Your task to perform on an android device: Open calendar and show me the first week of next month Image 0: 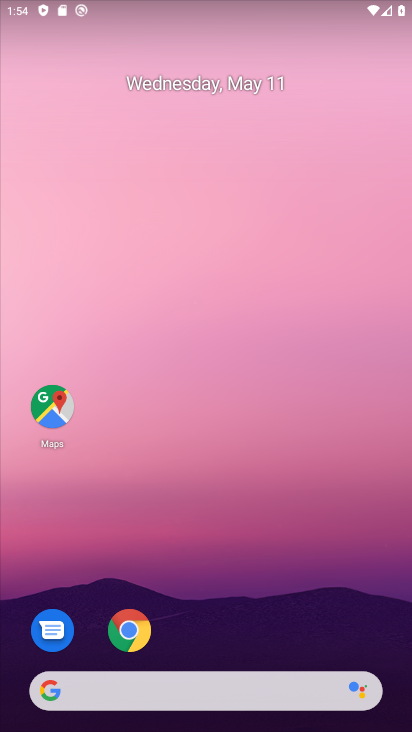
Step 0: drag from (217, 728) to (218, 158)
Your task to perform on an android device: Open calendar and show me the first week of next month Image 1: 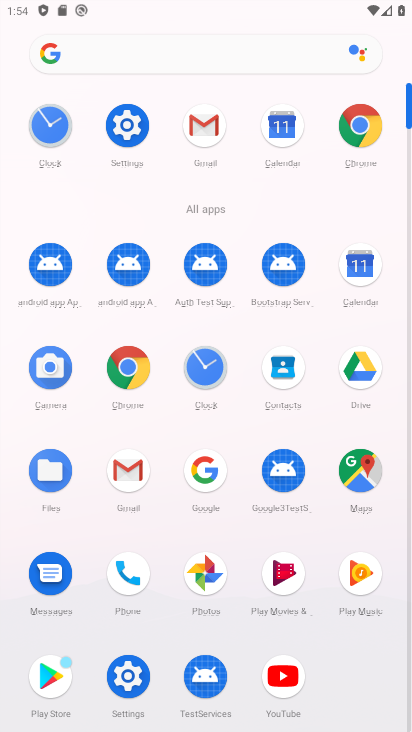
Step 1: click (364, 283)
Your task to perform on an android device: Open calendar and show me the first week of next month Image 2: 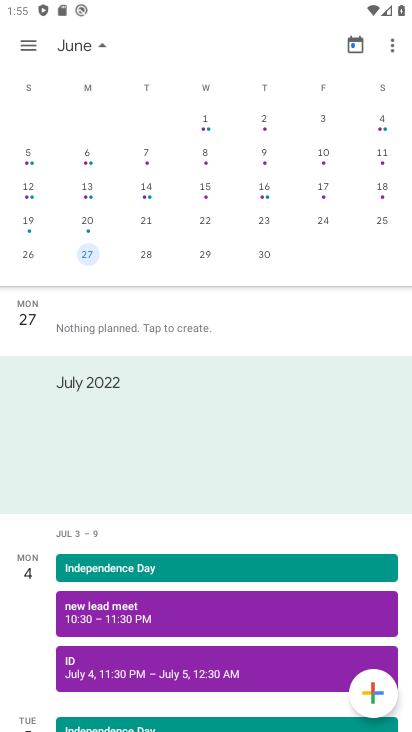
Step 2: click (84, 149)
Your task to perform on an android device: Open calendar and show me the first week of next month Image 3: 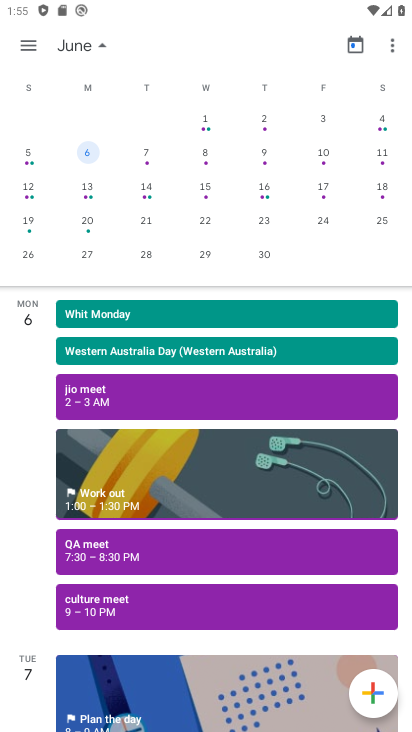
Step 3: click (27, 46)
Your task to perform on an android device: Open calendar and show me the first week of next month Image 4: 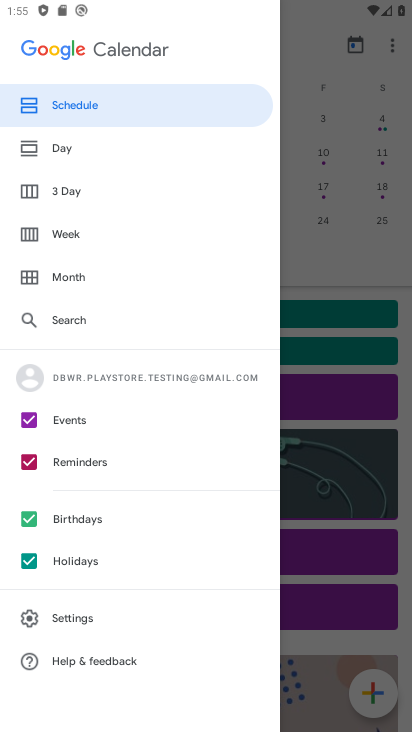
Step 4: click (66, 227)
Your task to perform on an android device: Open calendar and show me the first week of next month Image 5: 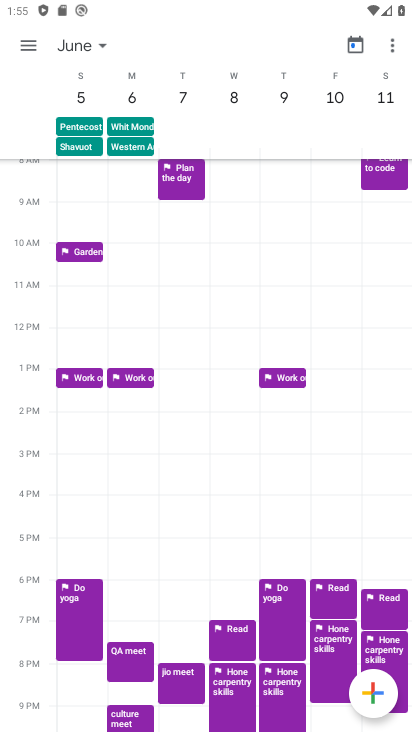
Step 5: task complete